Your task to perform on an android device: Search for "razer huntsman" on costco.com, select the first entry, and add it to the cart. Image 0: 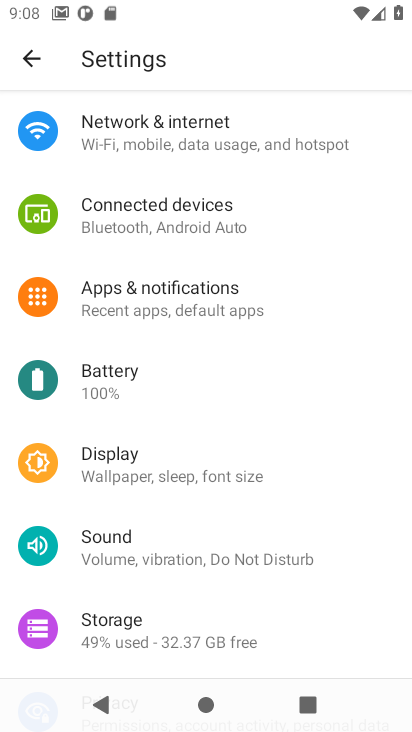
Step 0: press home button
Your task to perform on an android device: Search for "razer huntsman" on costco.com, select the first entry, and add it to the cart. Image 1: 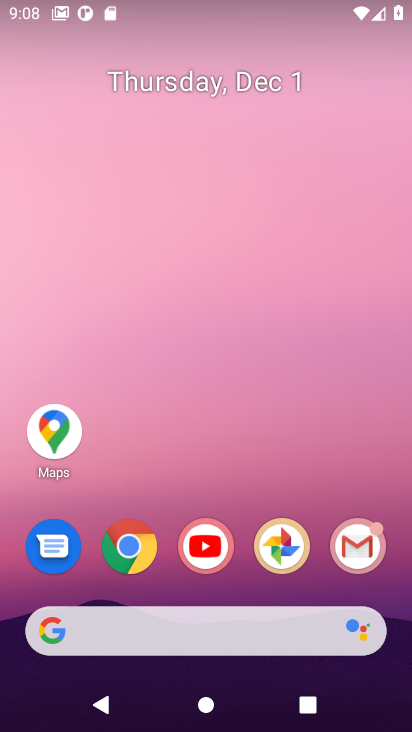
Step 1: click (125, 552)
Your task to perform on an android device: Search for "razer huntsman" on costco.com, select the first entry, and add it to the cart. Image 2: 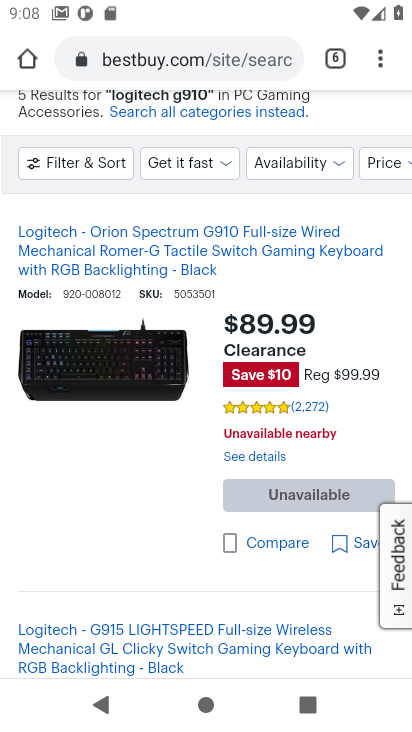
Step 2: click (167, 62)
Your task to perform on an android device: Search for "razer huntsman" on costco.com, select the first entry, and add it to the cart. Image 3: 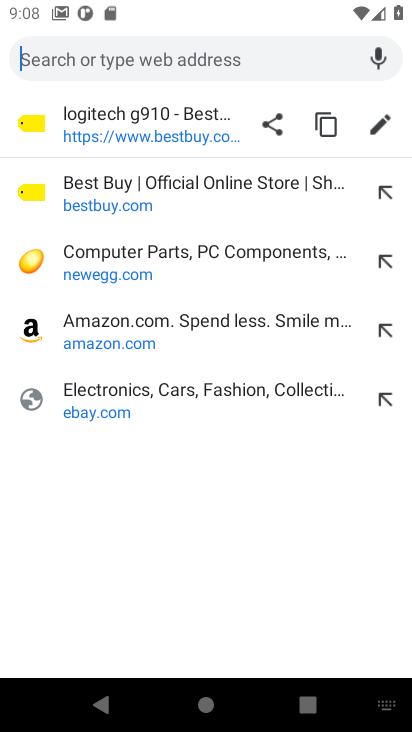
Step 3: type "costco.com"
Your task to perform on an android device: Search for "razer huntsman" on costco.com, select the first entry, and add it to the cart. Image 4: 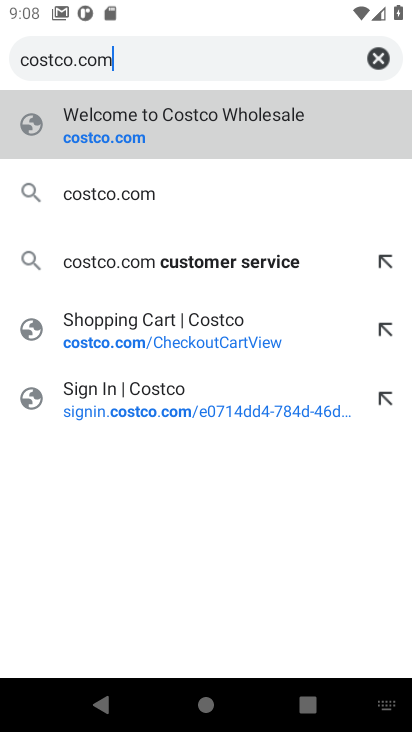
Step 4: click (101, 142)
Your task to perform on an android device: Search for "razer huntsman" on costco.com, select the first entry, and add it to the cart. Image 5: 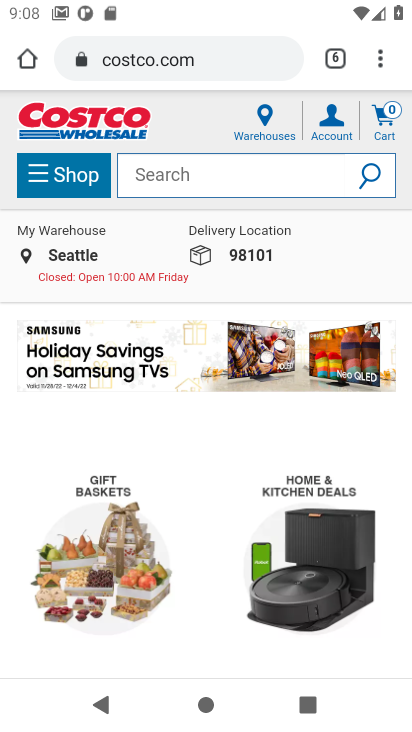
Step 5: click (157, 165)
Your task to perform on an android device: Search for "razer huntsman" on costco.com, select the first entry, and add it to the cart. Image 6: 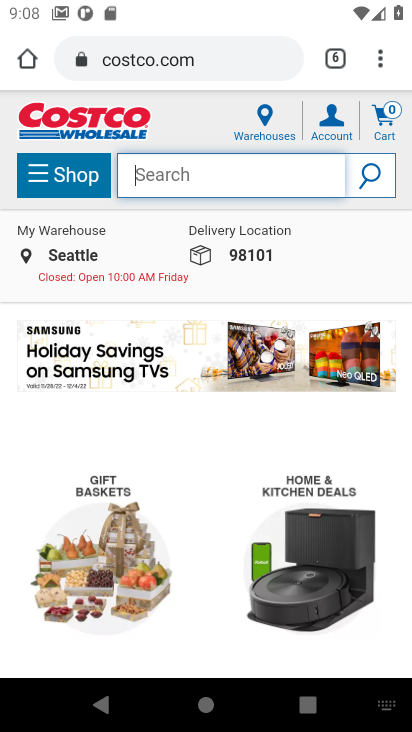
Step 6: type "razer huntsman"
Your task to perform on an android device: Search for "razer huntsman" on costco.com, select the first entry, and add it to the cart. Image 7: 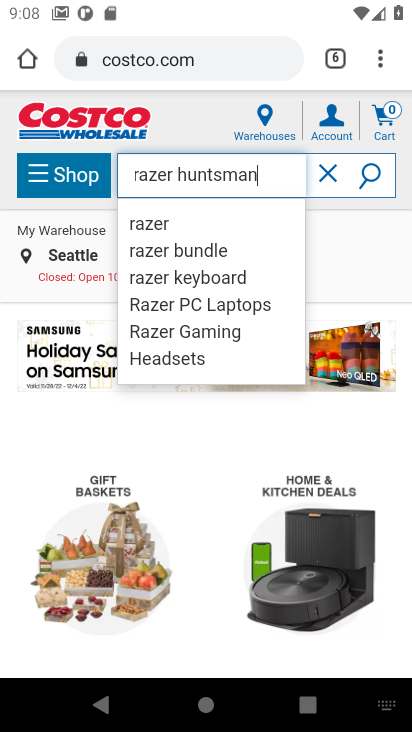
Step 7: click (372, 170)
Your task to perform on an android device: Search for "razer huntsman" on costco.com, select the first entry, and add it to the cart. Image 8: 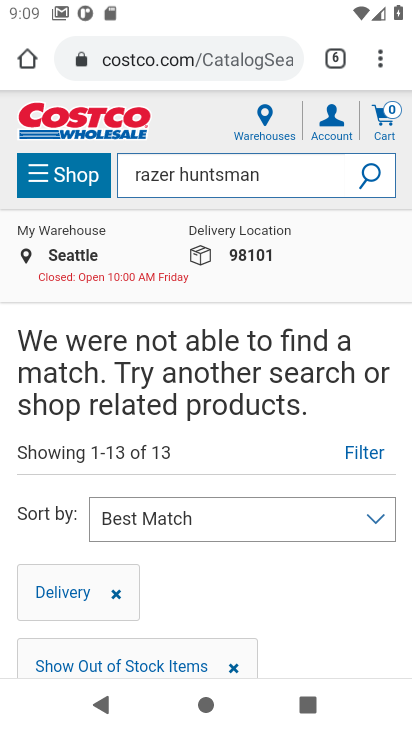
Step 8: task complete